Your task to perform on an android device: Show me popular games on the Play Store Image 0: 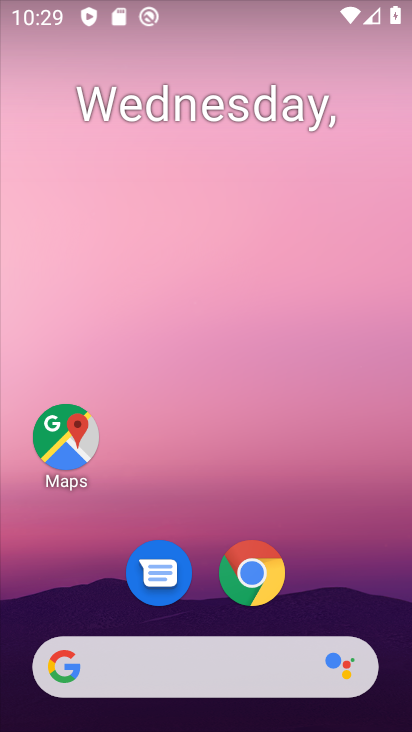
Step 0: drag from (333, 609) to (317, 204)
Your task to perform on an android device: Show me popular games on the Play Store Image 1: 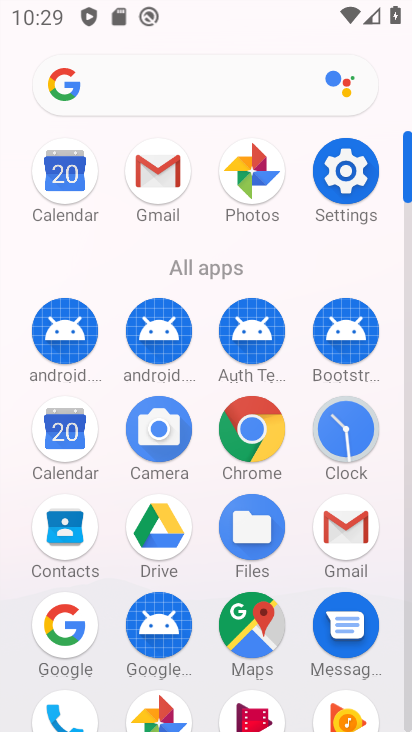
Step 1: drag from (292, 678) to (297, 336)
Your task to perform on an android device: Show me popular games on the Play Store Image 2: 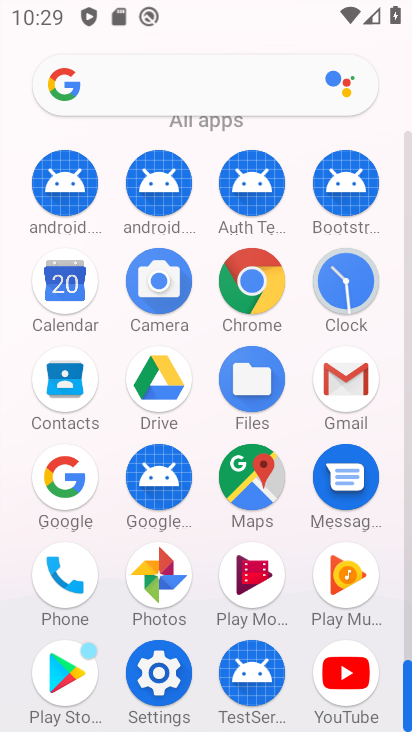
Step 2: click (62, 690)
Your task to perform on an android device: Show me popular games on the Play Store Image 3: 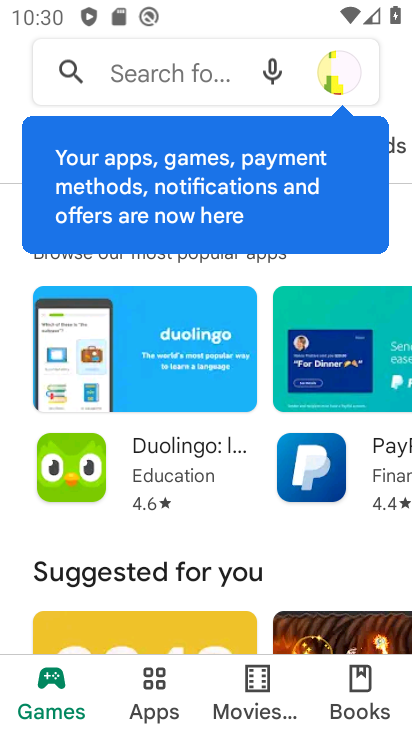
Step 3: drag from (257, 624) to (257, 357)
Your task to perform on an android device: Show me popular games on the Play Store Image 4: 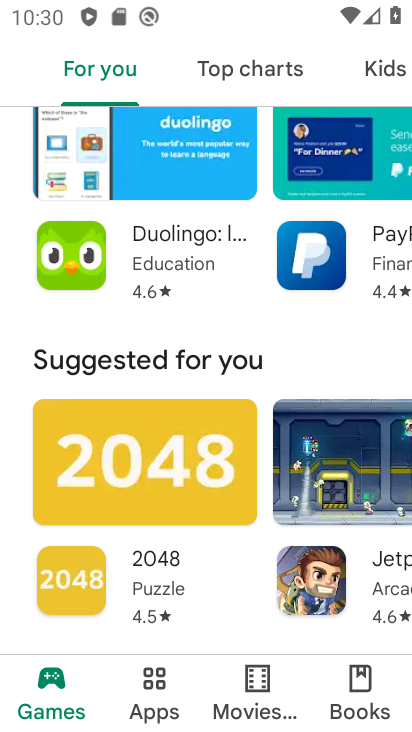
Step 4: drag from (230, 625) to (250, 291)
Your task to perform on an android device: Show me popular games on the Play Store Image 5: 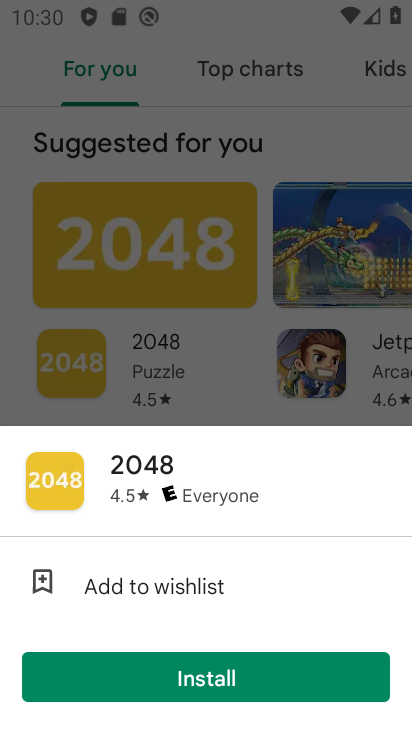
Step 5: drag from (261, 414) to (261, 140)
Your task to perform on an android device: Show me popular games on the Play Store Image 6: 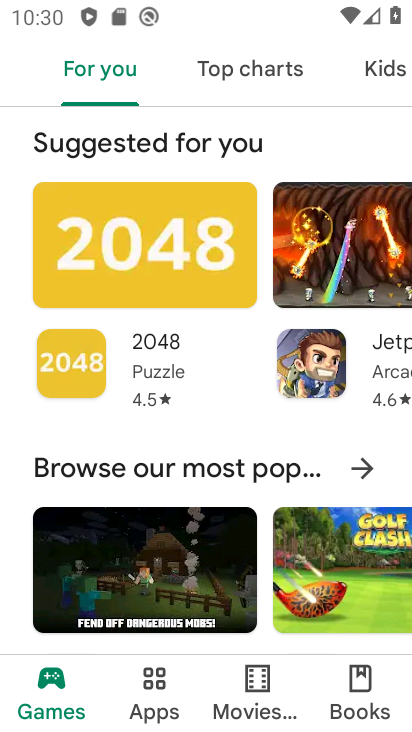
Step 6: click (291, 157)
Your task to perform on an android device: Show me popular games on the Play Store Image 7: 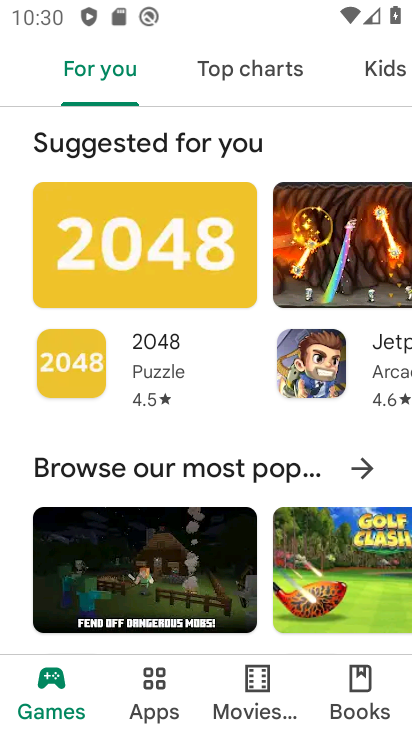
Step 7: drag from (241, 420) to (242, 356)
Your task to perform on an android device: Show me popular games on the Play Store Image 8: 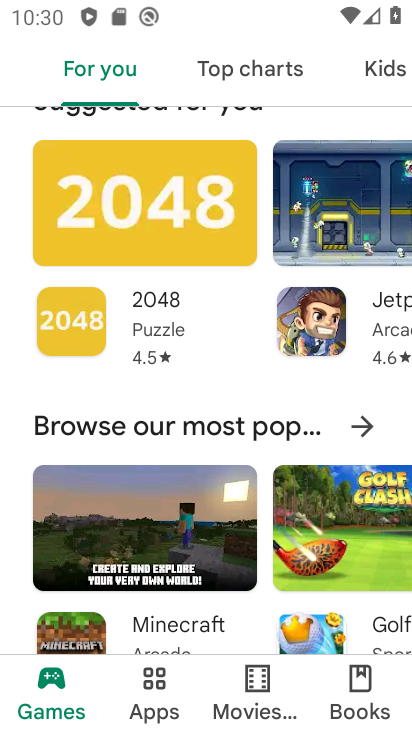
Step 8: click (355, 429)
Your task to perform on an android device: Show me popular games on the Play Store Image 9: 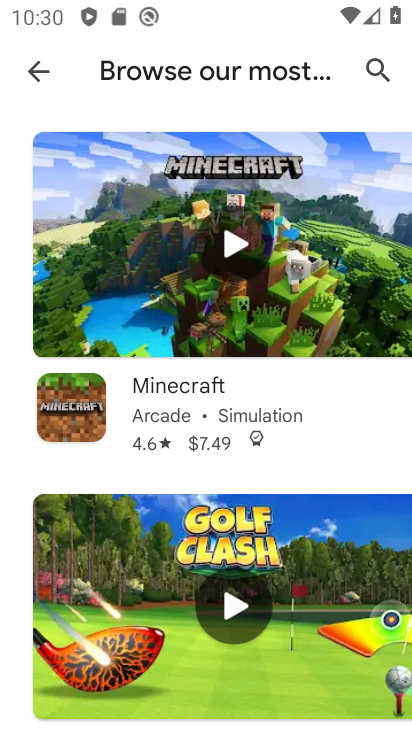
Step 9: task complete